Your task to perform on an android device: Open Youtube and go to "Your channel" Image 0: 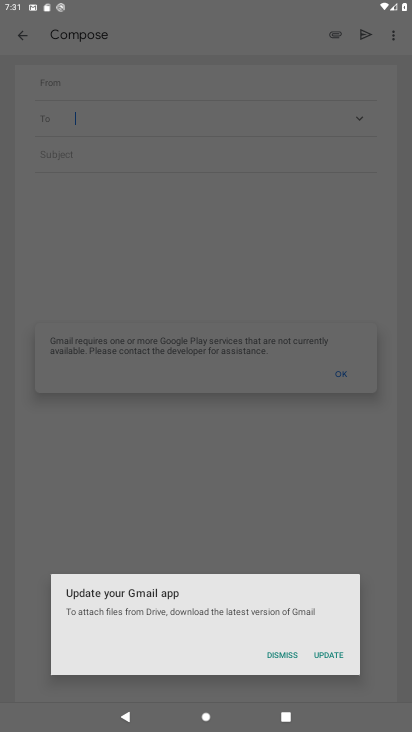
Step 0: press home button
Your task to perform on an android device: Open Youtube and go to "Your channel" Image 1: 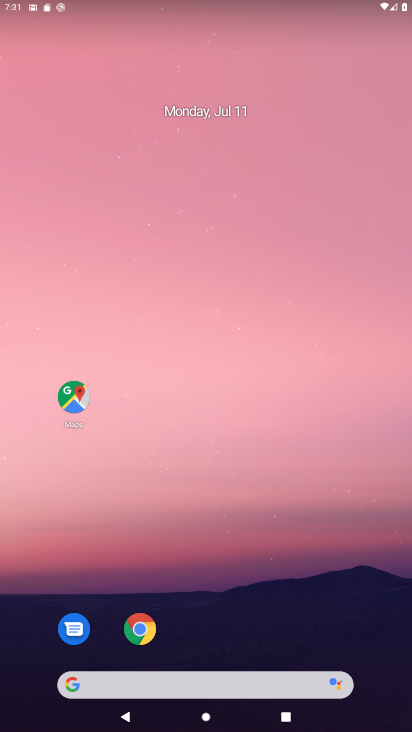
Step 1: drag from (347, 636) to (356, 154)
Your task to perform on an android device: Open Youtube and go to "Your channel" Image 2: 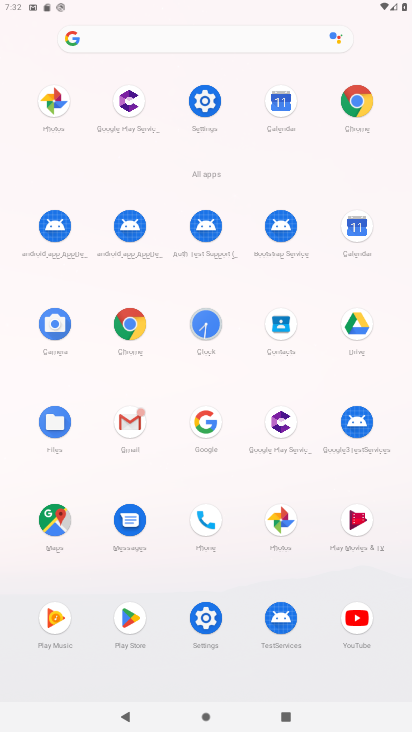
Step 2: click (357, 624)
Your task to perform on an android device: Open Youtube and go to "Your channel" Image 3: 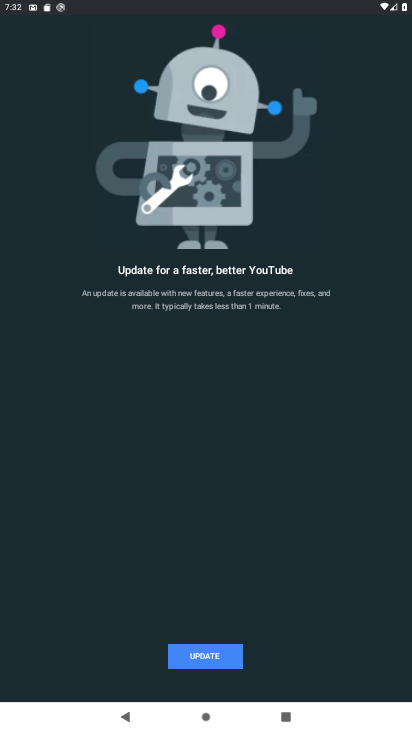
Step 3: click (225, 655)
Your task to perform on an android device: Open Youtube and go to "Your channel" Image 4: 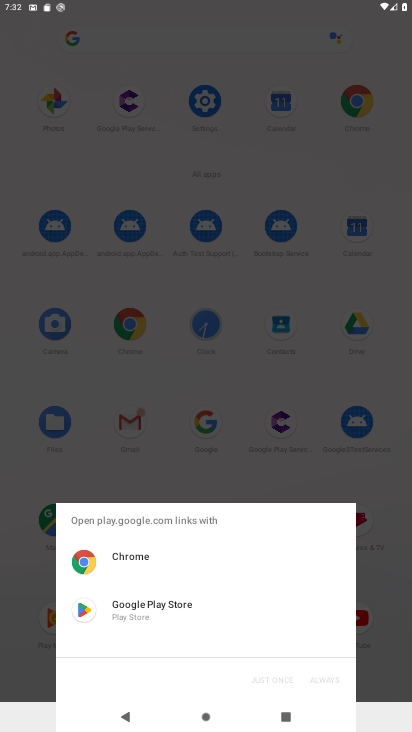
Step 4: click (170, 614)
Your task to perform on an android device: Open Youtube and go to "Your channel" Image 5: 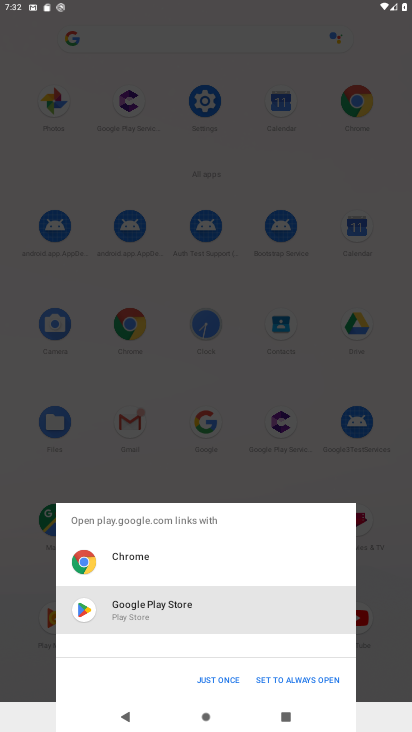
Step 5: click (217, 682)
Your task to perform on an android device: Open Youtube and go to "Your channel" Image 6: 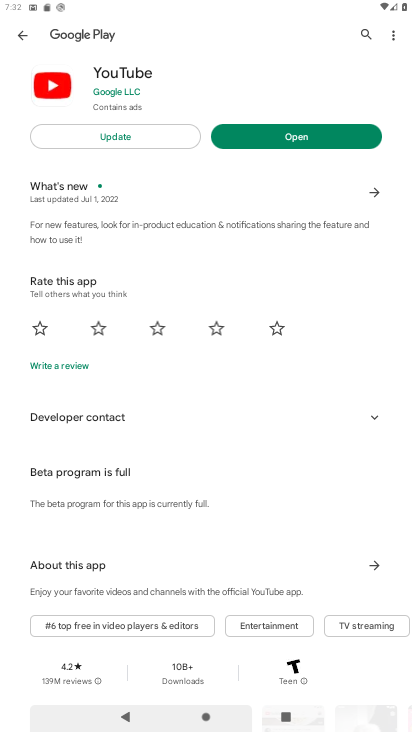
Step 6: click (180, 129)
Your task to perform on an android device: Open Youtube and go to "Your channel" Image 7: 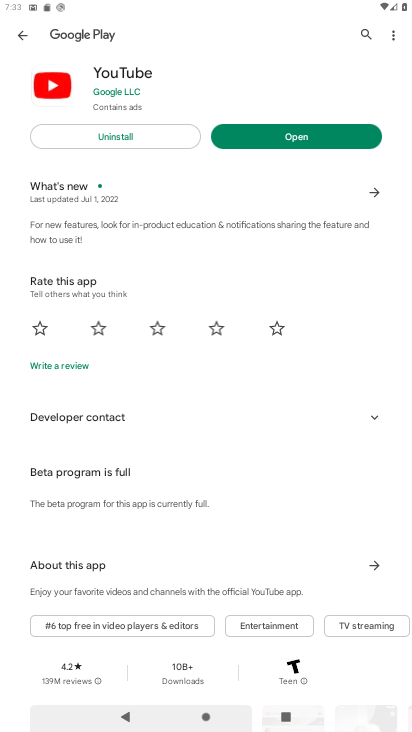
Step 7: click (340, 138)
Your task to perform on an android device: Open Youtube and go to "Your channel" Image 8: 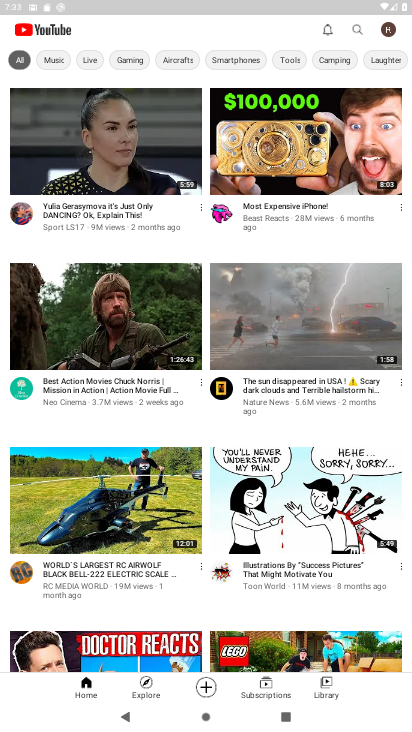
Step 8: click (392, 28)
Your task to perform on an android device: Open Youtube and go to "Your channel" Image 9: 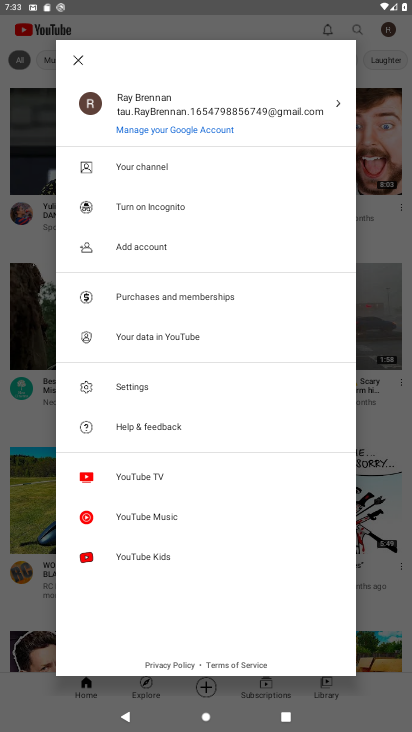
Step 9: click (195, 159)
Your task to perform on an android device: Open Youtube and go to "Your channel" Image 10: 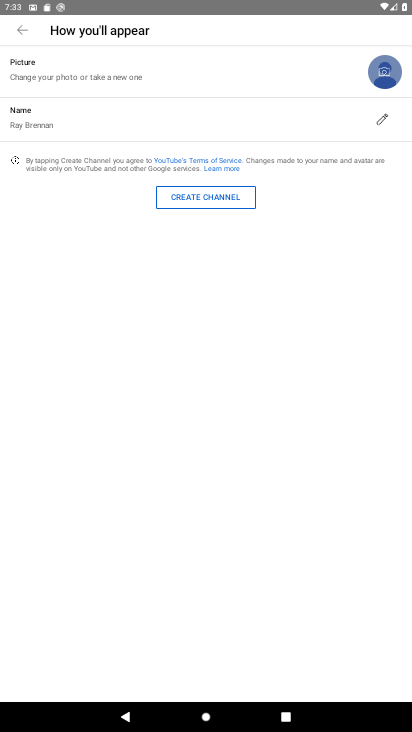
Step 10: task complete